Your task to perform on an android device: Open settings Image 0: 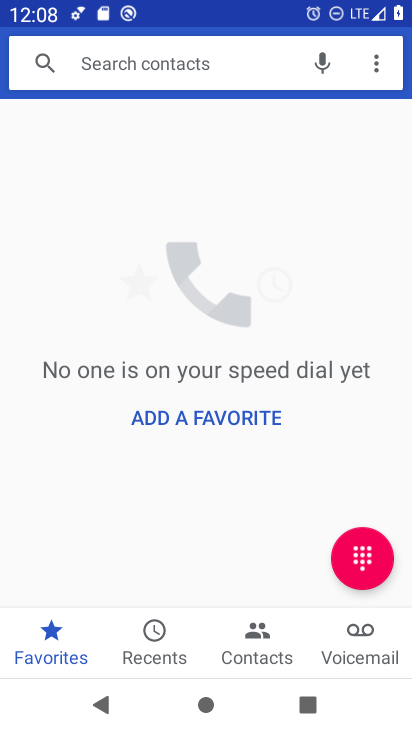
Step 0: press back button
Your task to perform on an android device: Open settings Image 1: 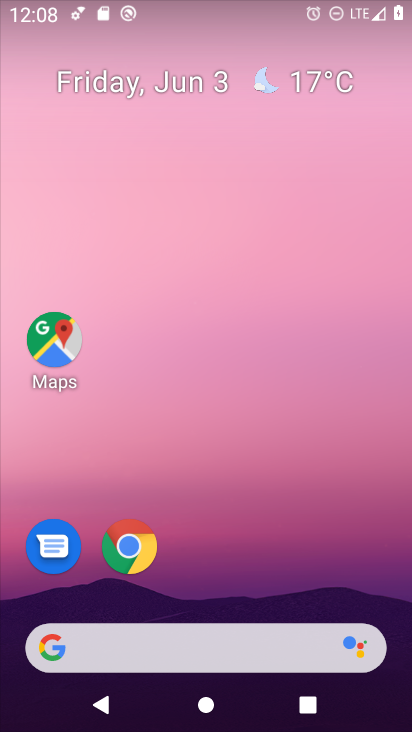
Step 1: drag from (288, 364) to (297, 22)
Your task to perform on an android device: Open settings Image 2: 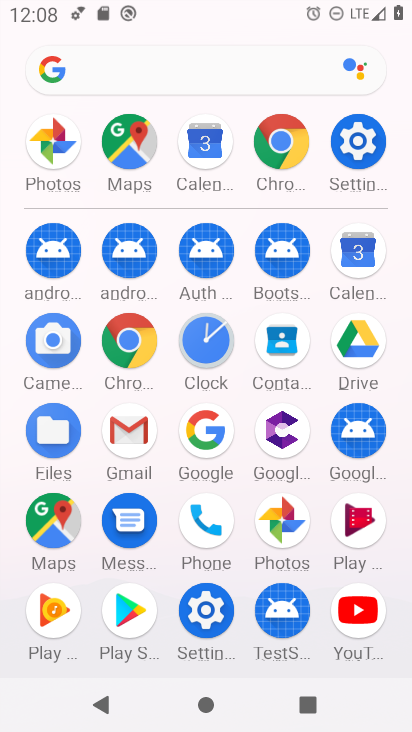
Step 2: click (203, 613)
Your task to perform on an android device: Open settings Image 3: 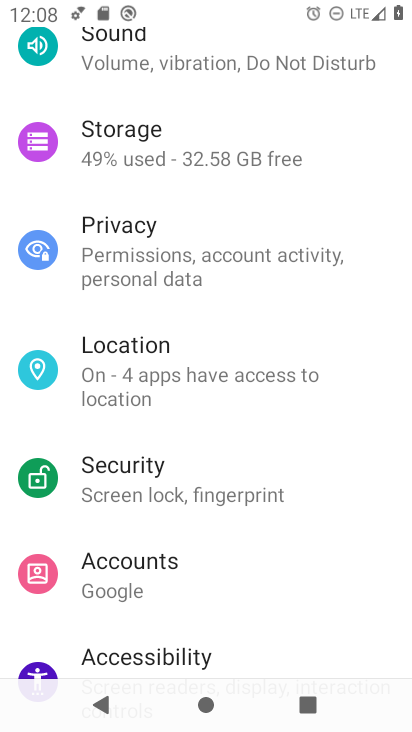
Step 3: task complete